Your task to perform on an android device: allow cookies in the chrome app Image 0: 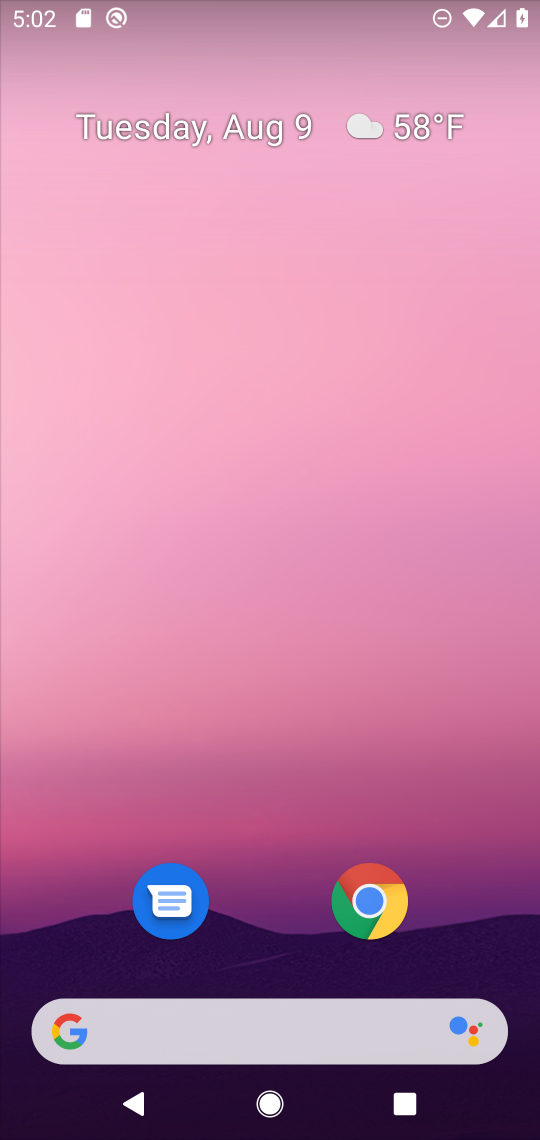
Step 0: drag from (297, 935) to (314, 2)
Your task to perform on an android device: allow cookies in the chrome app Image 1: 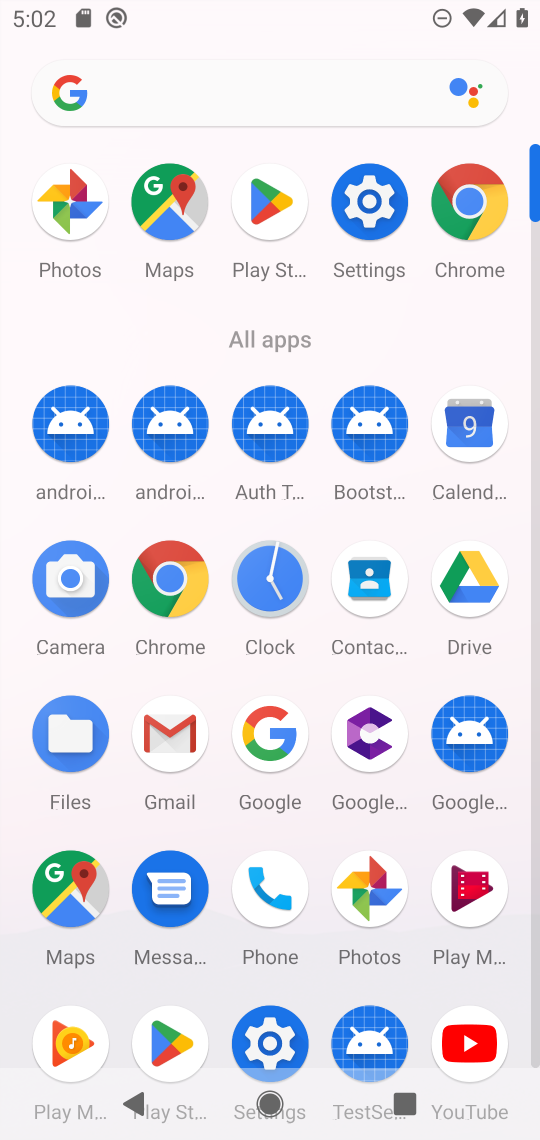
Step 1: click (167, 578)
Your task to perform on an android device: allow cookies in the chrome app Image 2: 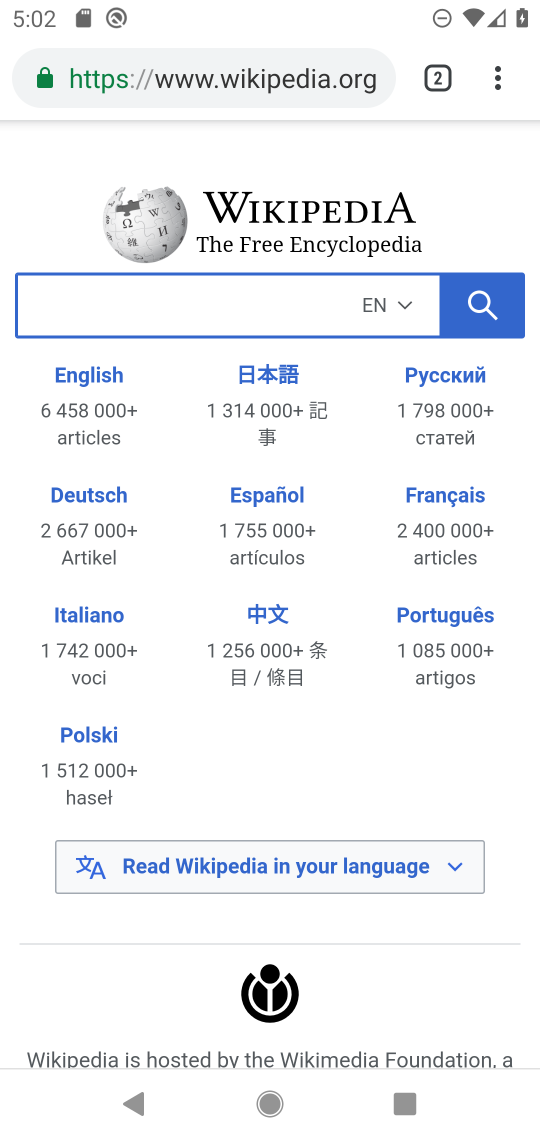
Step 2: drag from (493, 81) to (252, 923)
Your task to perform on an android device: allow cookies in the chrome app Image 3: 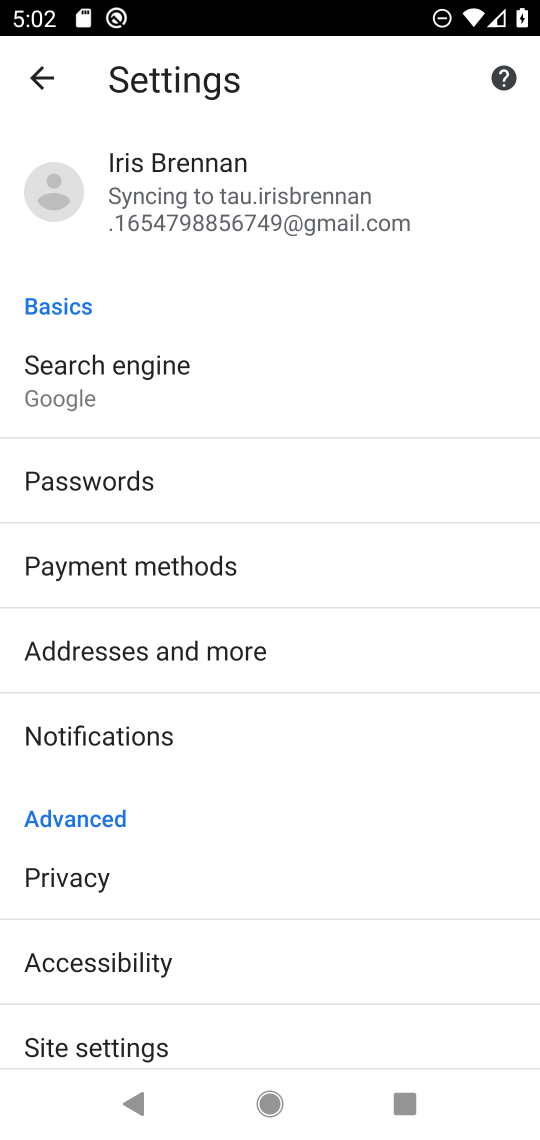
Step 3: drag from (170, 987) to (200, 392)
Your task to perform on an android device: allow cookies in the chrome app Image 4: 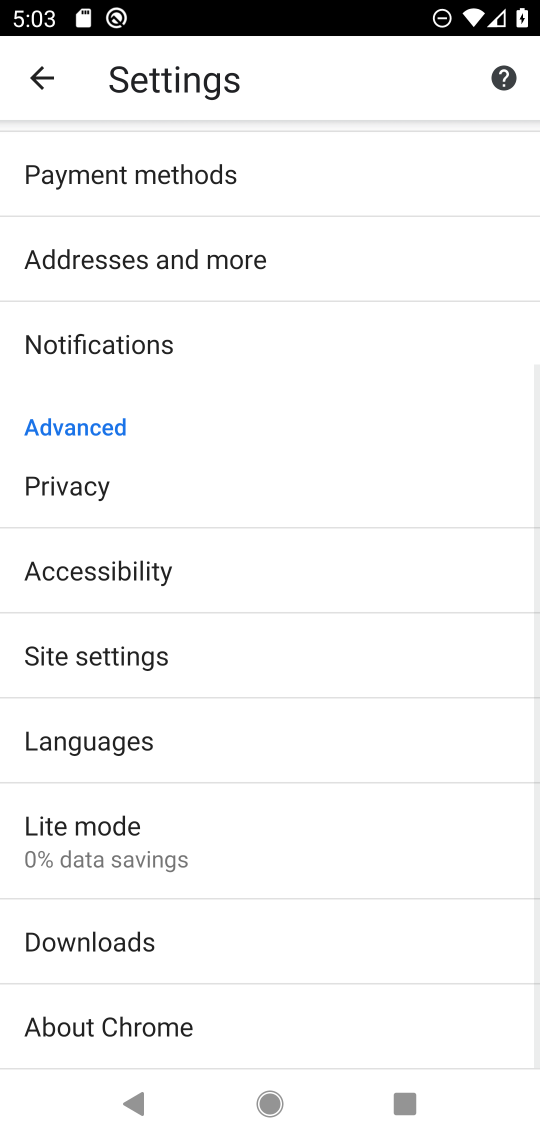
Step 4: click (134, 659)
Your task to perform on an android device: allow cookies in the chrome app Image 5: 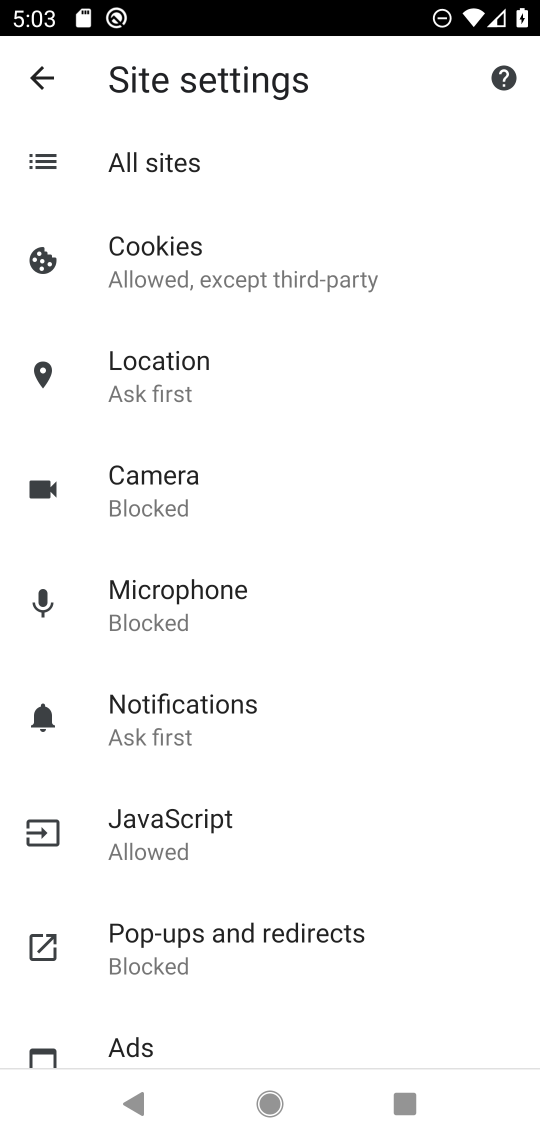
Step 5: click (160, 227)
Your task to perform on an android device: allow cookies in the chrome app Image 6: 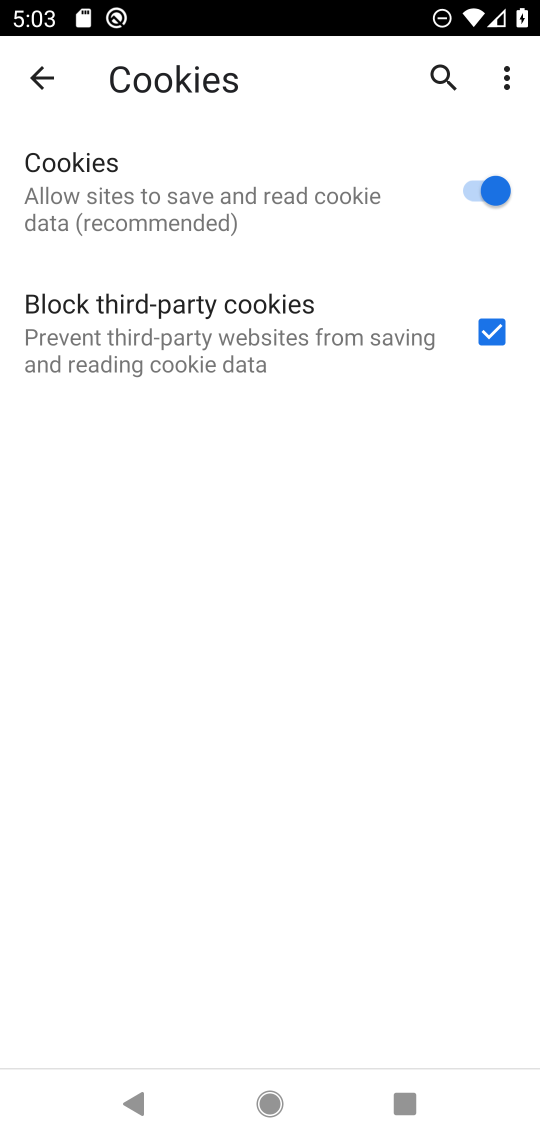
Step 6: task complete